Your task to perform on an android device: toggle notification dots Image 0: 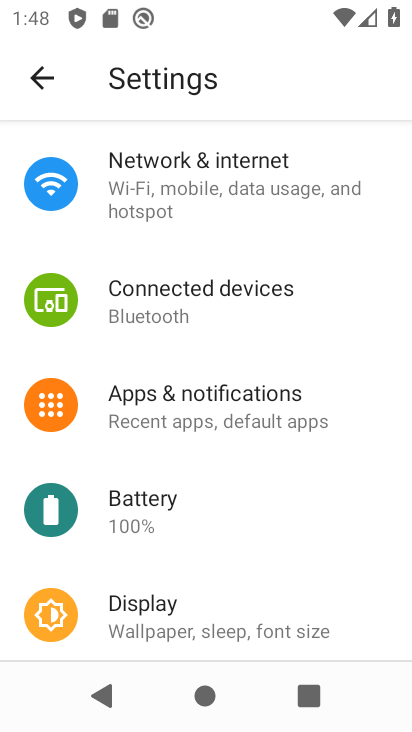
Step 0: click (153, 384)
Your task to perform on an android device: toggle notification dots Image 1: 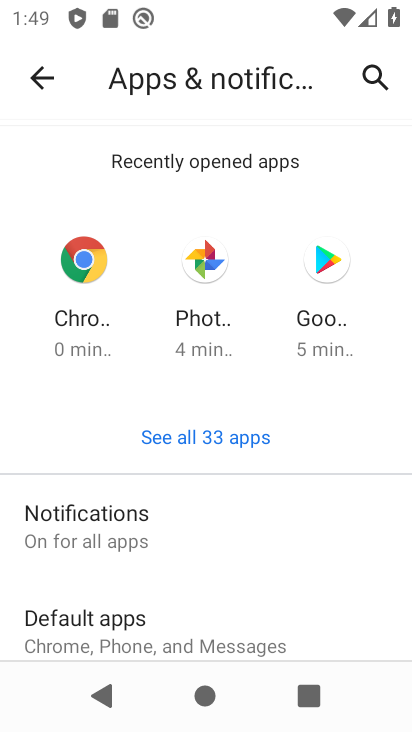
Step 1: drag from (254, 583) to (220, 293)
Your task to perform on an android device: toggle notification dots Image 2: 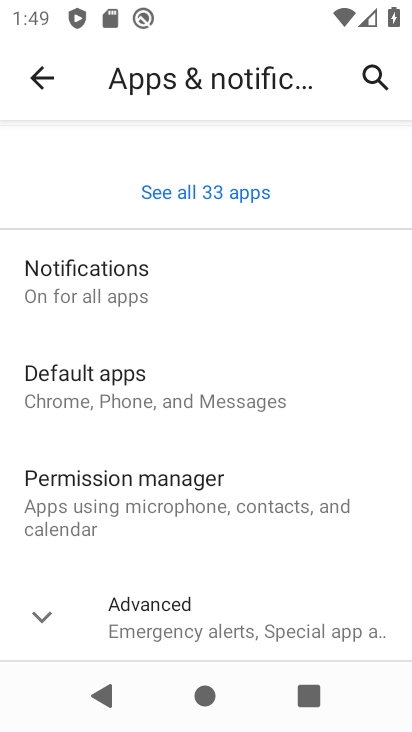
Step 2: click (159, 601)
Your task to perform on an android device: toggle notification dots Image 3: 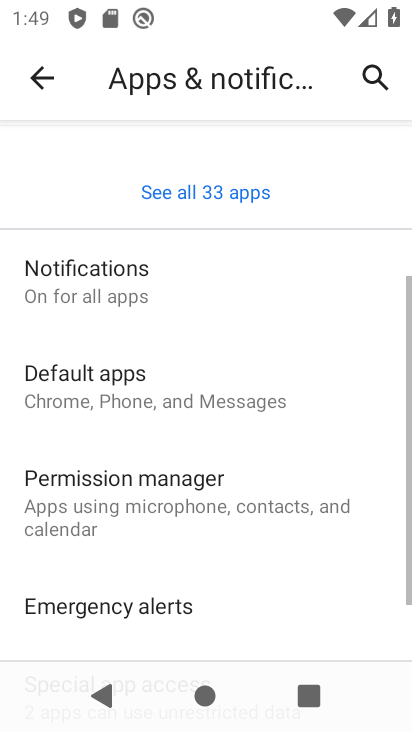
Step 3: drag from (252, 585) to (283, 178)
Your task to perform on an android device: toggle notification dots Image 4: 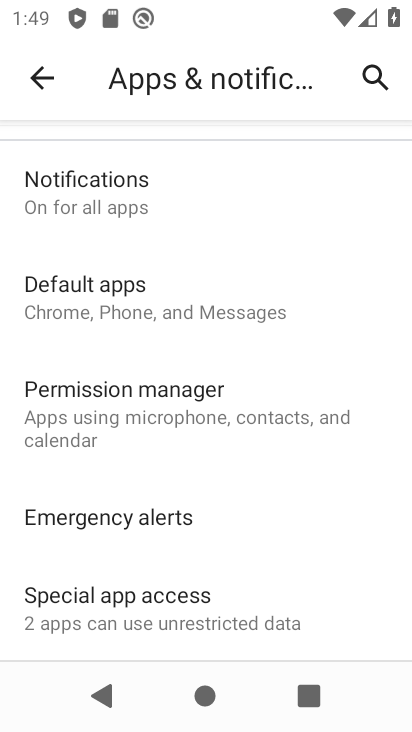
Step 4: click (49, 174)
Your task to perform on an android device: toggle notification dots Image 5: 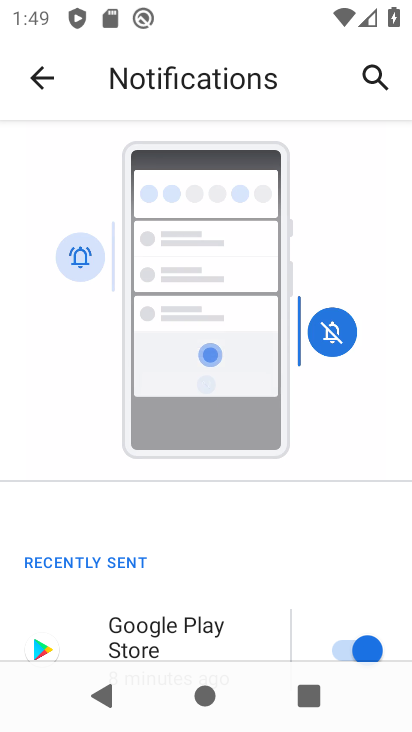
Step 5: drag from (288, 575) to (303, 226)
Your task to perform on an android device: toggle notification dots Image 6: 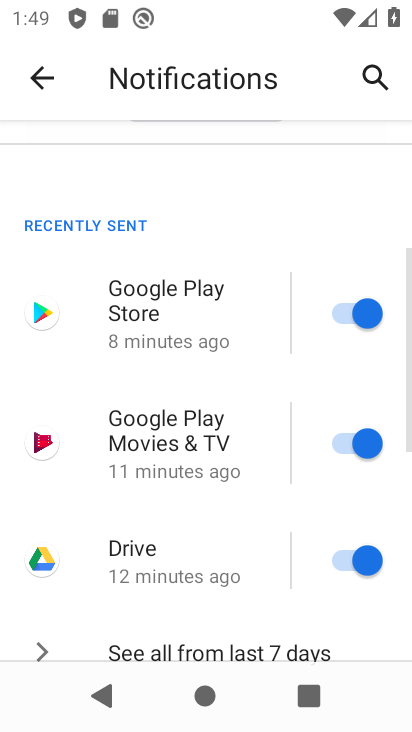
Step 6: drag from (190, 616) to (201, 293)
Your task to perform on an android device: toggle notification dots Image 7: 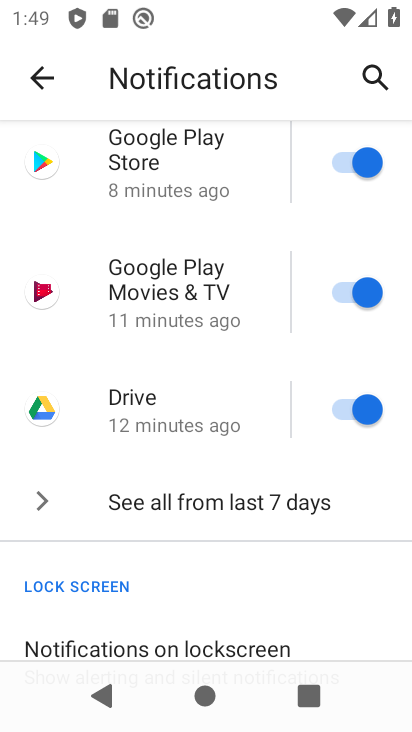
Step 7: click (100, 390)
Your task to perform on an android device: toggle notification dots Image 8: 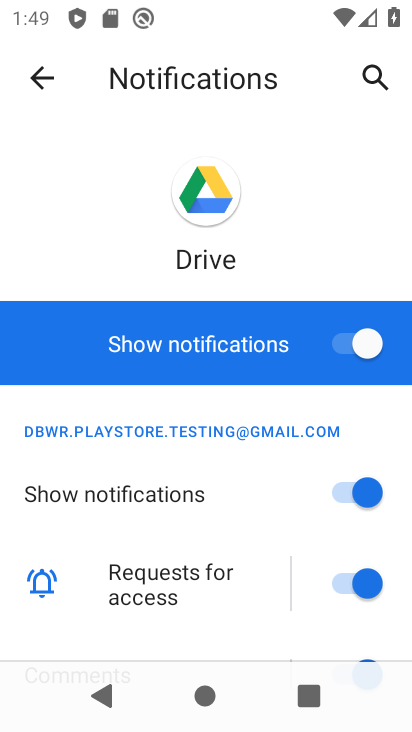
Step 8: task complete